Your task to perform on an android device: What's the weather today? Image 0: 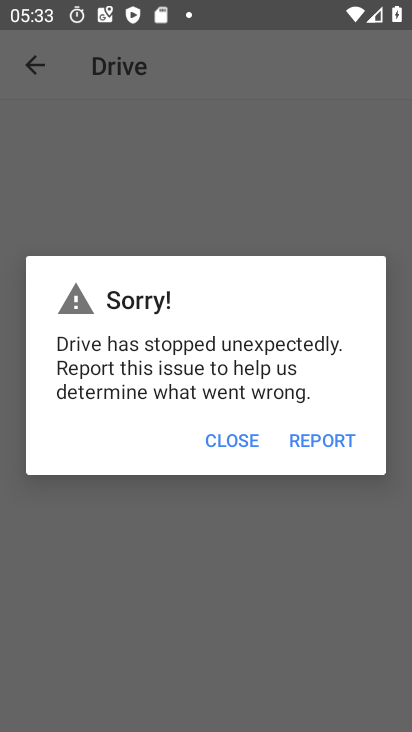
Step 0: press back button
Your task to perform on an android device: What's the weather today? Image 1: 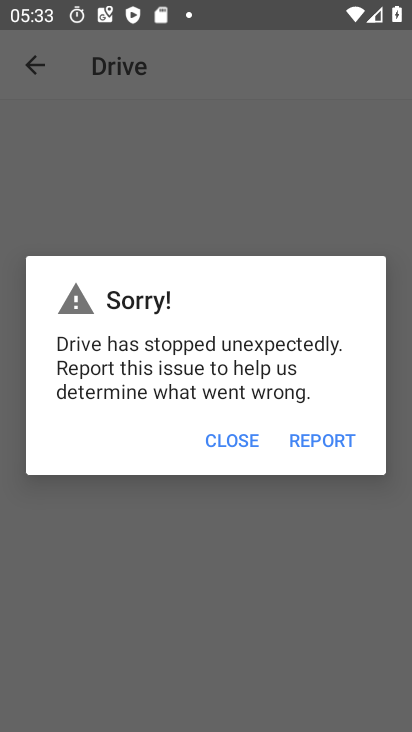
Step 1: press home button
Your task to perform on an android device: What's the weather today? Image 2: 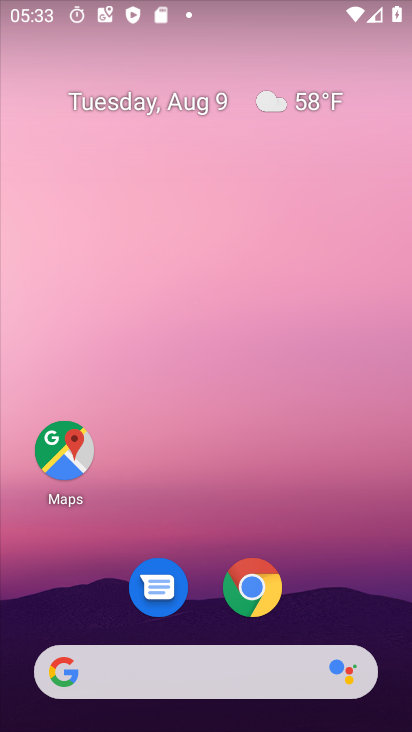
Step 2: click (287, 106)
Your task to perform on an android device: What's the weather today? Image 3: 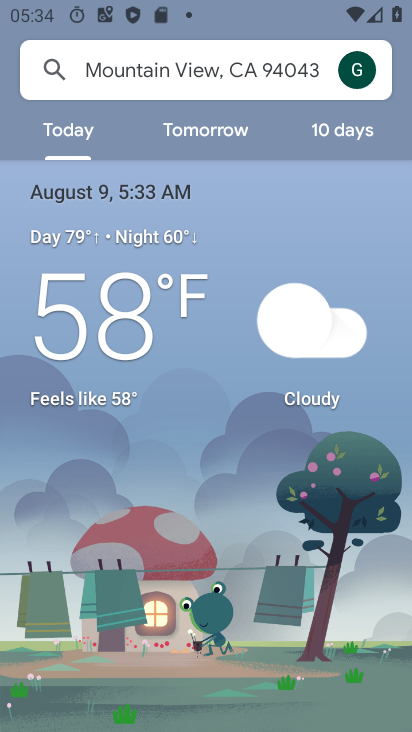
Step 3: task complete